Your task to perform on an android device: turn on location history Image 0: 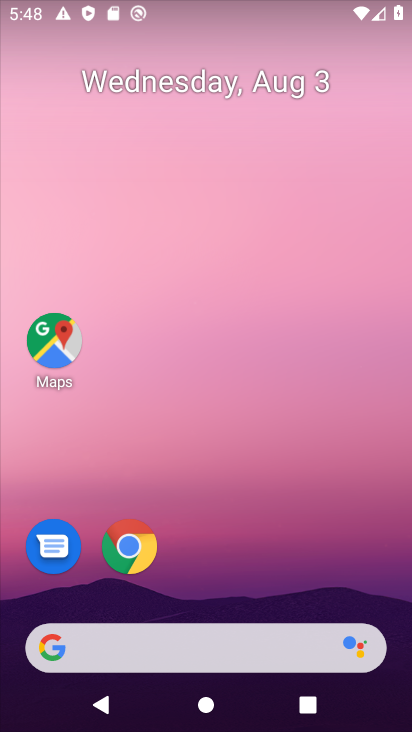
Step 0: drag from (254, 610) to (316, 30)
Your task to perform on an android device: turn on location history Image 1: 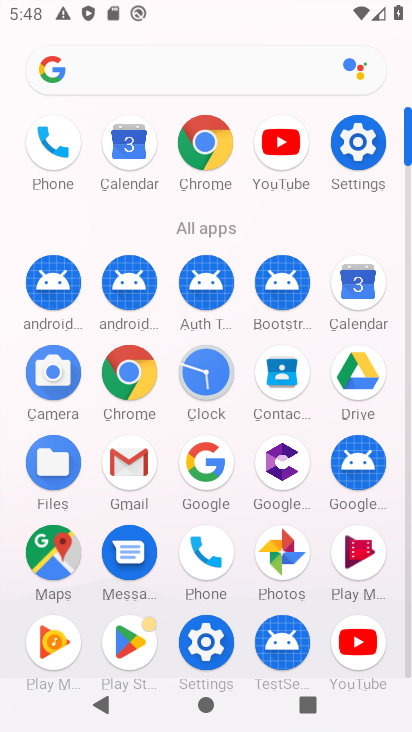
Step 1: click (361, 135)
Your task to perform on an android device: turn on location history Image 2: 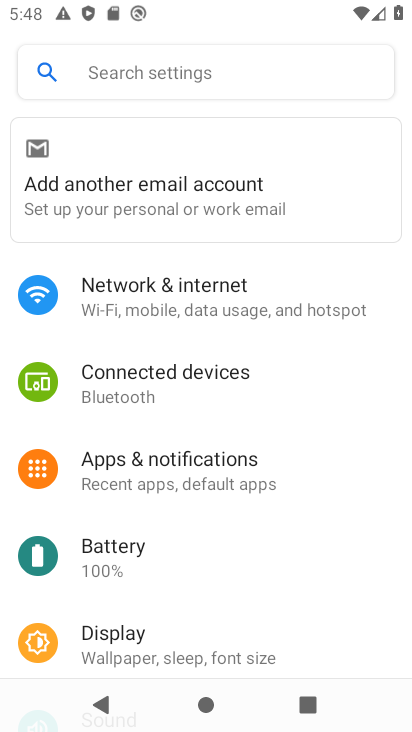
Step 2: drag from (281, 562) to (268, 161)
Your task to perform on an android device: turn on location history Image 3: 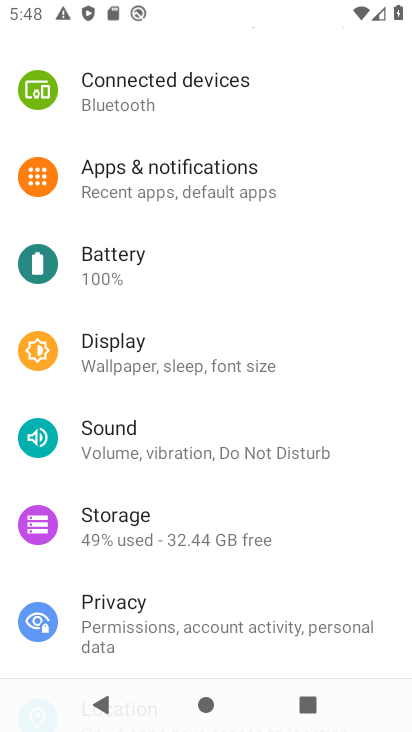
Step 3: drag from (341, 581) to (389, 263)
Your task to perform on an android device: turn on location history Image 4: 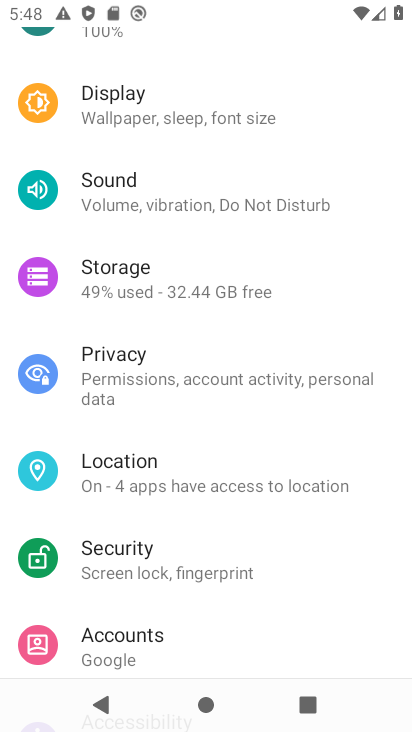
Step 4: click (95, 461)
Your task to perform on an android device: turn on location history Image 5: 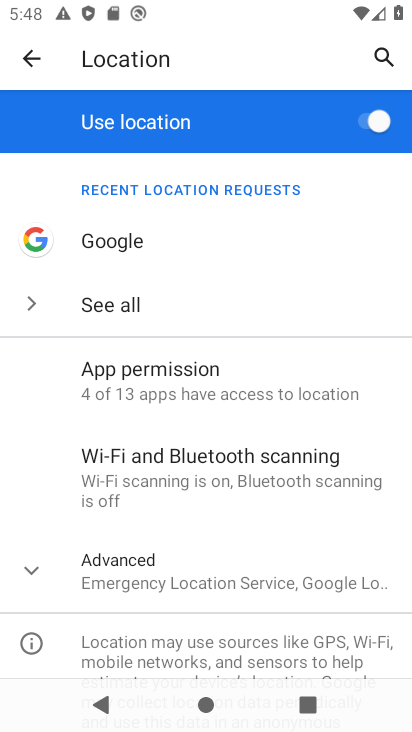
Step 5: click (114, 575)
Your task to perform on an android device: turn on location history Image 6: 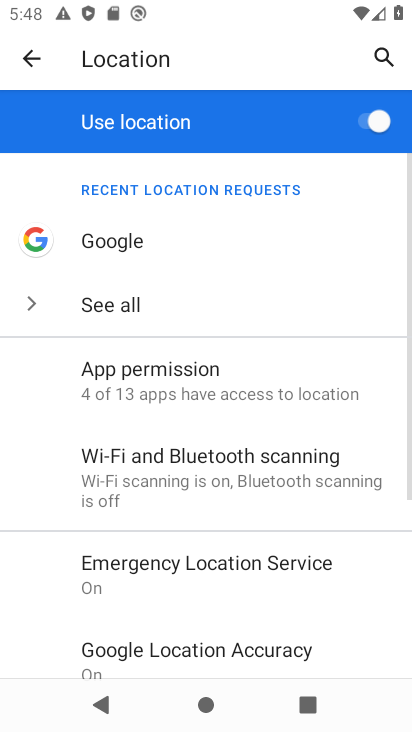
Step 6: drag from (362, 630) to (368, 335)
Your task to perform on an android device: turn on location history Image 7: 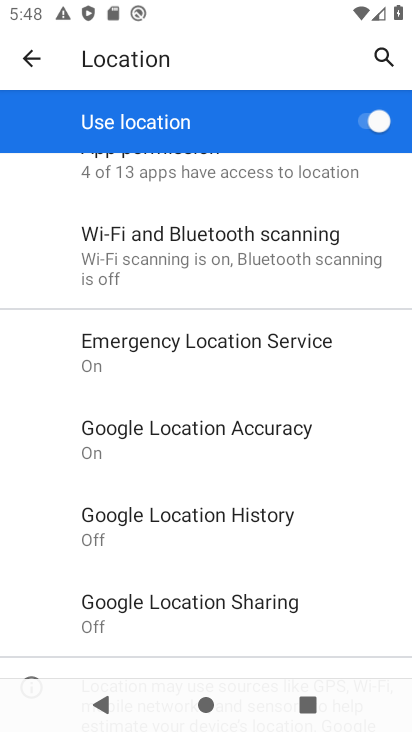
Step 7: click (231, 513)
Your task to perform on an android device: turn on location history Image 8: 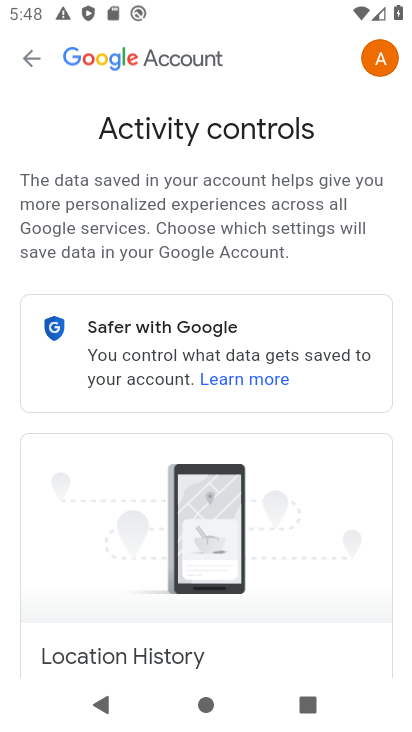
Step 8: drag from (406, 561) to (408, 35)
Your task to perform on an android device: turn on location history Image 9: 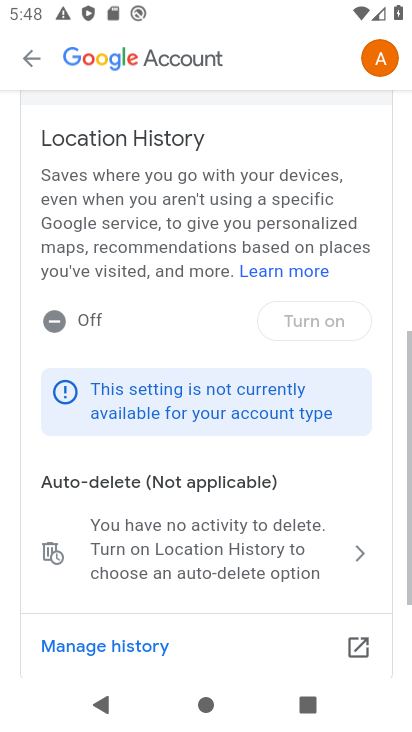
Step 9: drag from (259, 655) to (265, 4)
Your task to perform on an android device: turn on location history Image 10: 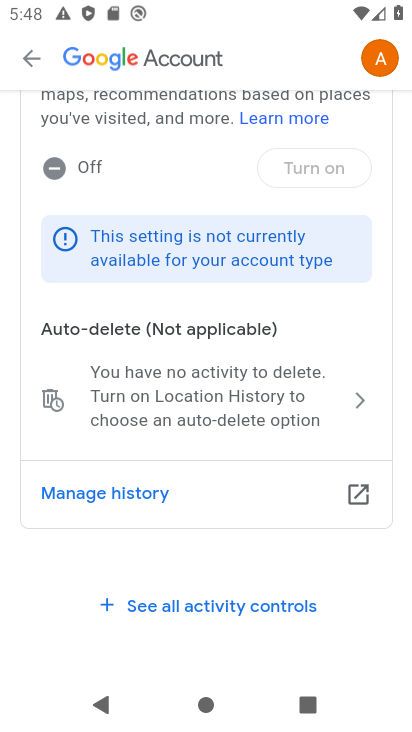
Step 10: click (316, 161)
Your task to perform on an android device: turn on location history Image 11: 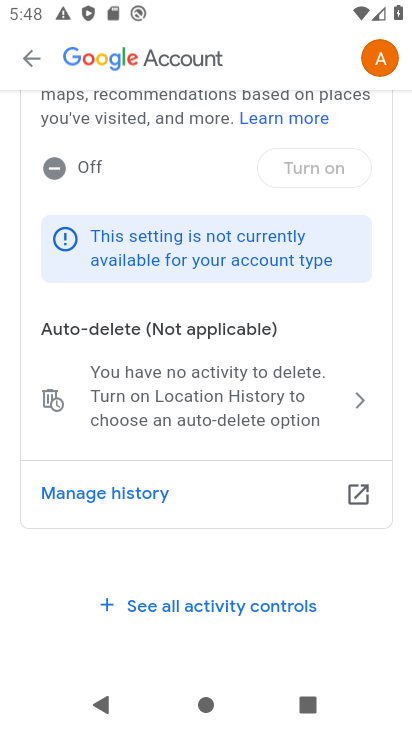
Step 11: task complete